Your task to perform on an android device: turn off javascript in the chrome app Image 0: 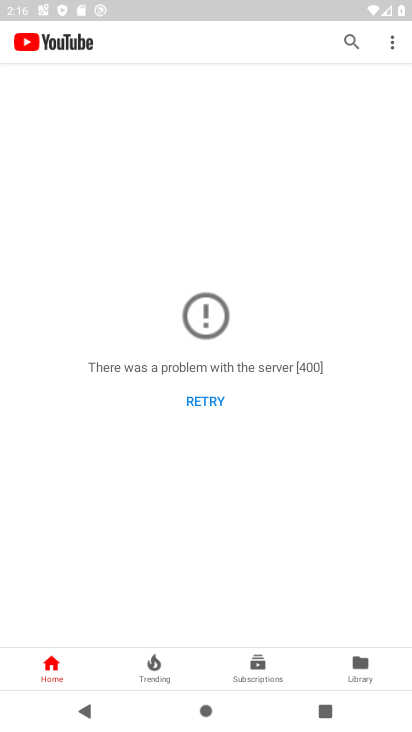
Step 0: press home button
Your task to perform on an android device: turn off javascript in the chrome app Image 1: 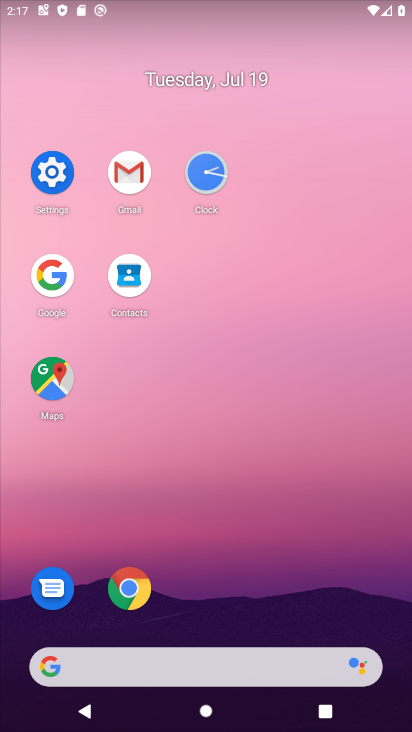
Step 1: click (129, 570)
Your task to perform on an android device: turn off javascript in the chrome app Image 2: 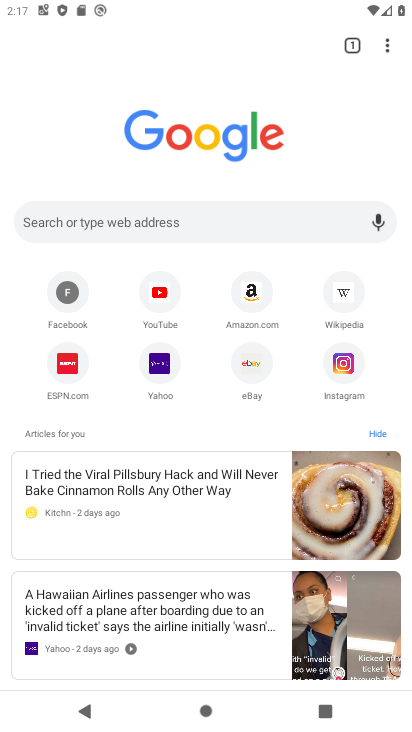
Step 2: click (394, 39)
Your task to perform on an android device: turn off javascript in the chrome app Image 3: 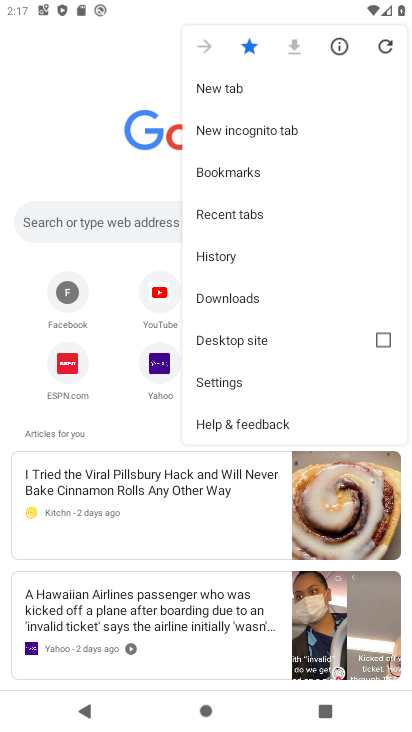
Step 3: click (232, 383)
Your task to perform on an android device: turn off javascript in the chrome app Image 4: 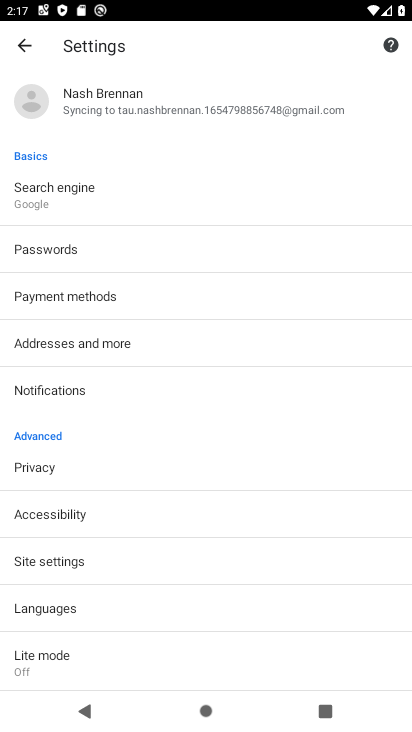
Step 4: drag from (180, 662) to (170, 288)
Your task to perform on an android device: turn off javascript in the chrome app Image 5: 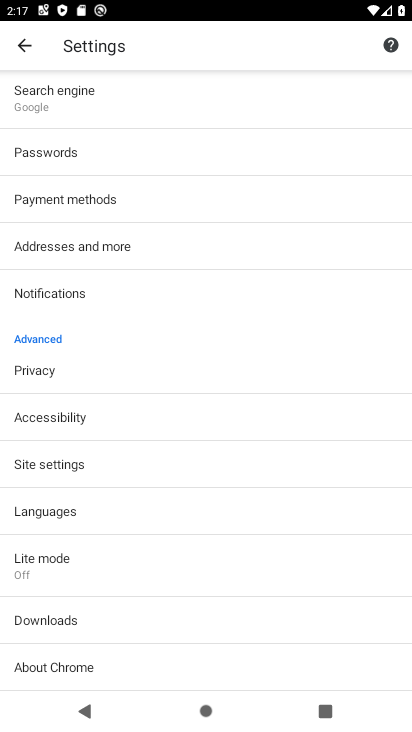
Step 5: click (39, 473)
Your task to perform on an android device: turn off javascript in the chrome app Image 6: 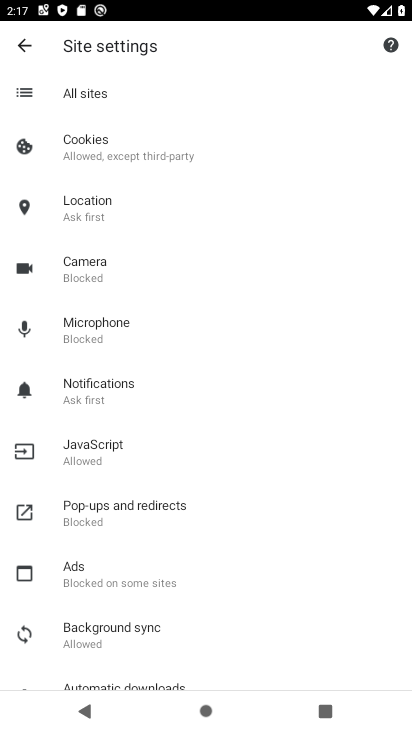
Step 6: click (186, 460)
Your task to perform on an android device: turn off javascript in the chrome app Image 7: 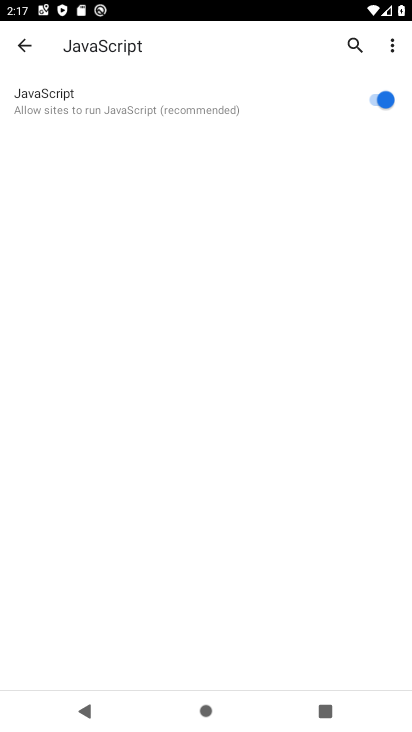
Step 7: click (380, 114)
Your task to perform on an android device: turn off javascript in the chrome app Image 8: 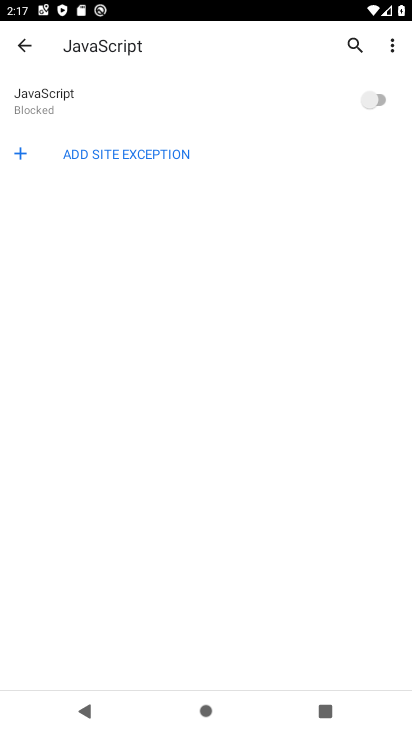
Step 8: task complete